Your task to perform on an android device: What's the weather going to be this weekend? Image 0: 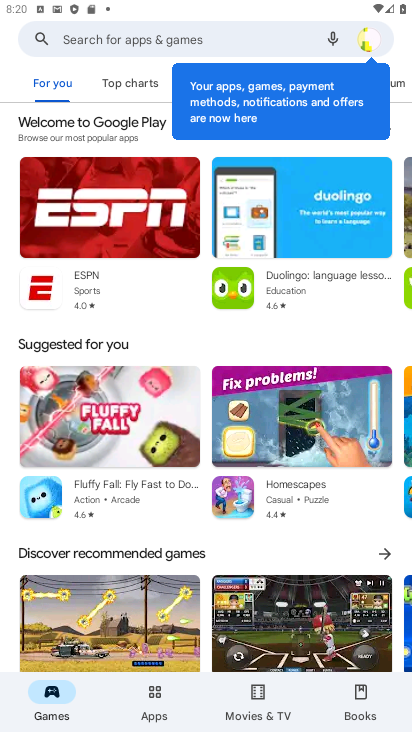
Step 0: press home button
Your task to perform on an android device: What's the weather going to be this weekend? Image 1: 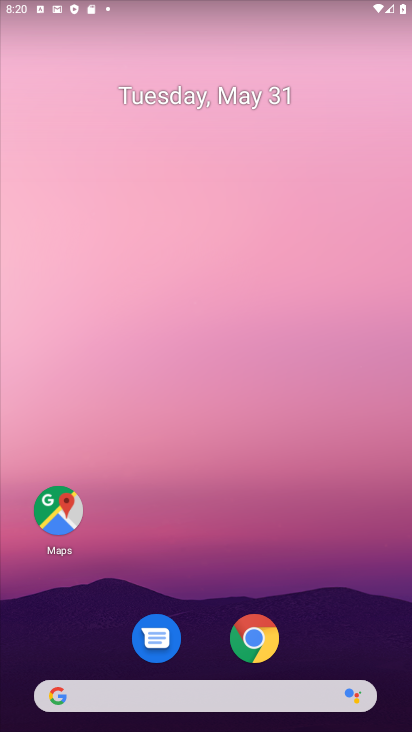
Step 1: click (124, 697)
Your task to perform on an android device: What's the weather going to be this weekend? Image 2: 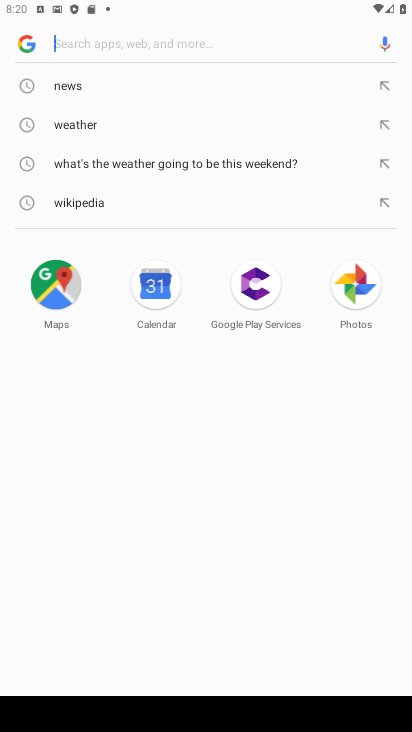
Step 2: type "What's the weather going to be this weekend?"
Your task to perform on an android device: What's the weather going to be this weekend? Image 3: 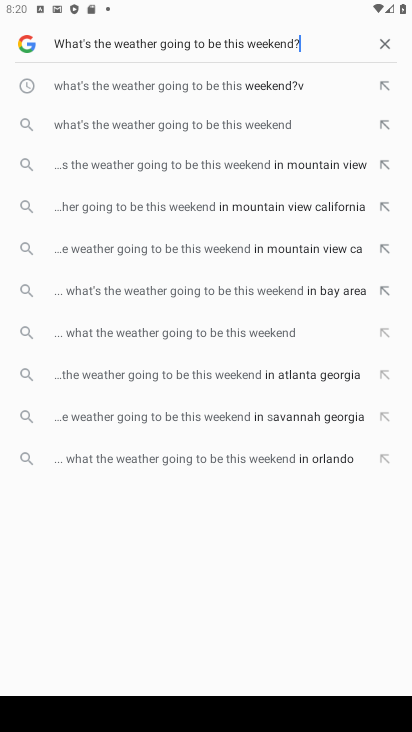
Step 3: click (223, 161)
Your task to perform on an android device: What's the weather going to be this weekend? Image 4: 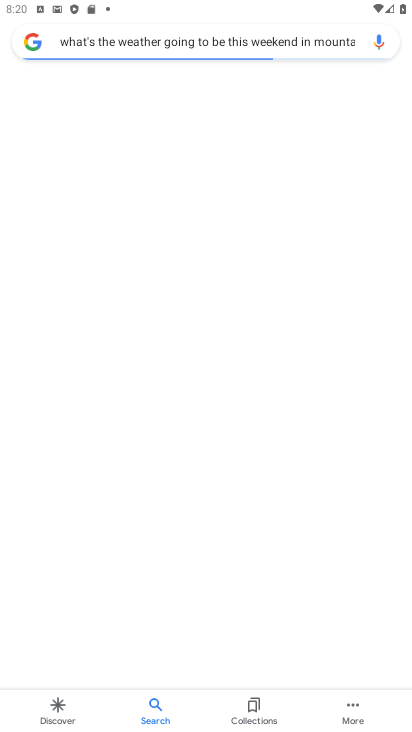
Step 4: click (290, 126)
Your task to perform on an android device: What's the weather going to be this weekend? Image 5: 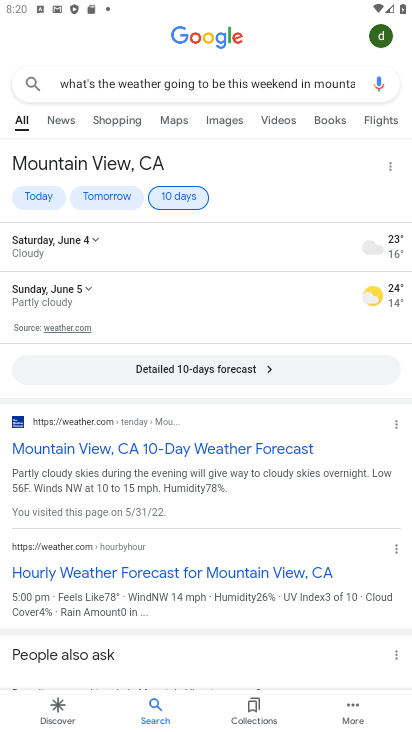
Step 5: task complete